Your task to perform on an android device: Go to battery settings Image 0: 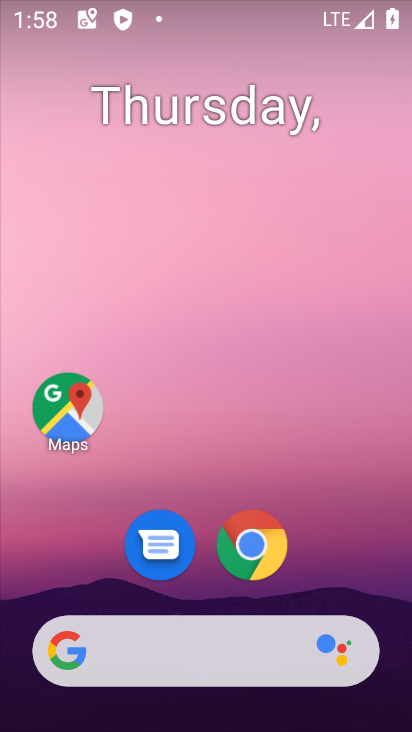
Step 0: drag from (285, 716) to (293, 260)
Your task to perform on an android device: Go to battery settings Image 1: 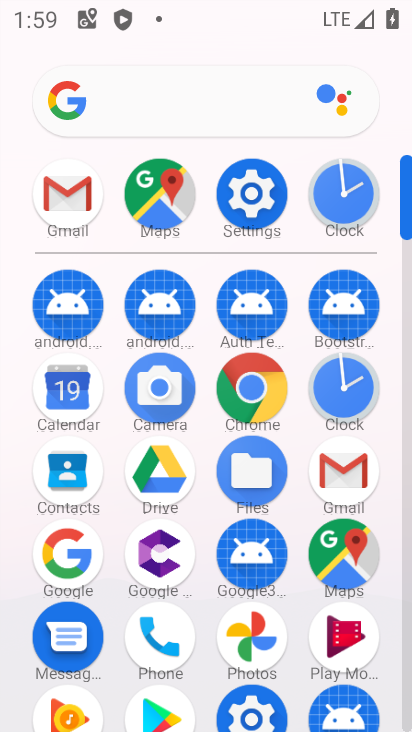
Step 1: click (271, 197)
Your task to perform on an android device: Go to battery settings Image 2: 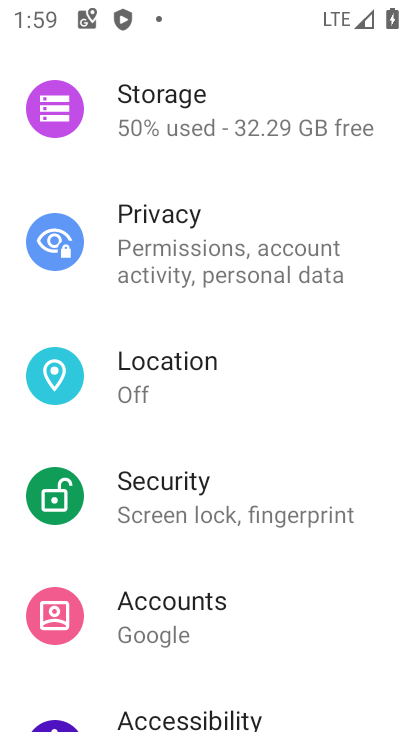
Step 2: drag from (255, 436) to (260, 40)
Your task to perform on an android device: Go to battery settings Image 3: 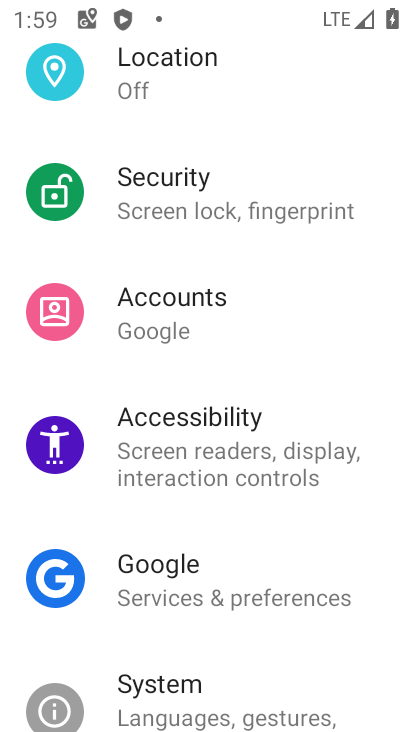
Step 3: drag from (304, 121) to (298, 582)
Your task to perform on an android device: Go to battery settings Image 4: 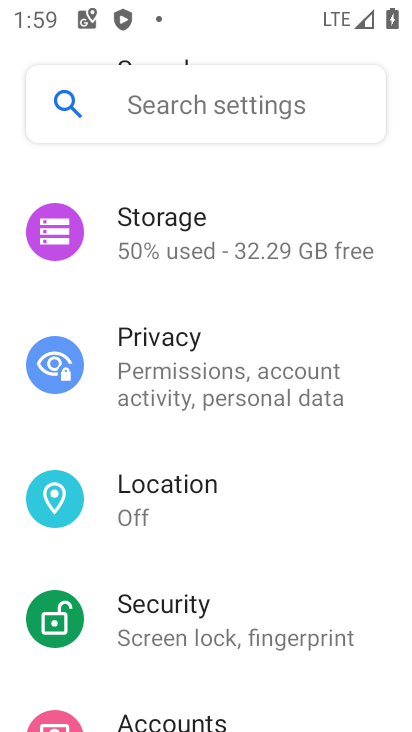
Step 4: drag from (301, 224) to (321, 618)
Your task to perform on an android device: Go to battery settings Image 5: 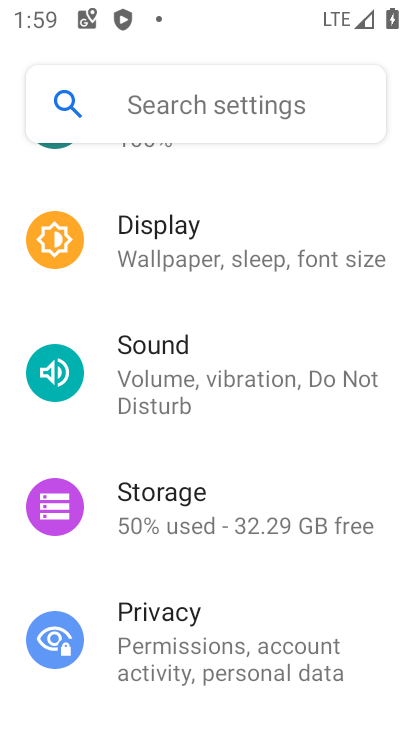
Step 5: drag from (281, 219) to (318, 564)
Your task to perform on an android device: Go to battery settings Image 6: 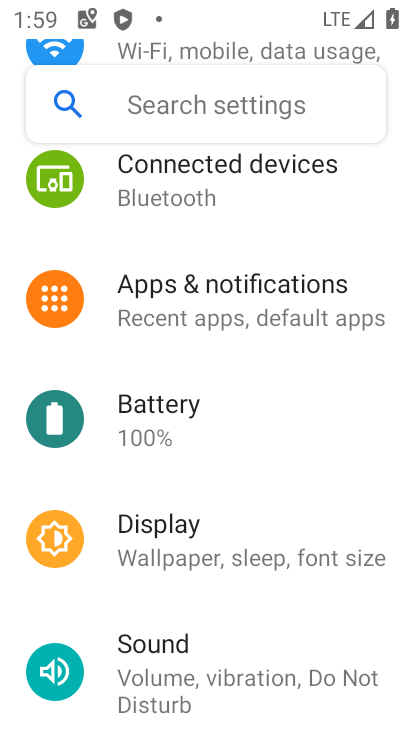
Step 6: click (245, 421)
Your task to perform on an android device: Go to battery settings Image 7: 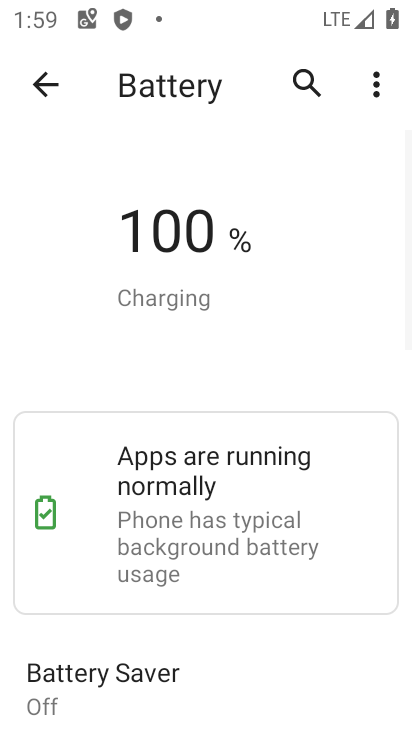
Step 7: task complete